Your task to perform on an android device: visit the assistant section in the google photos Image 0: 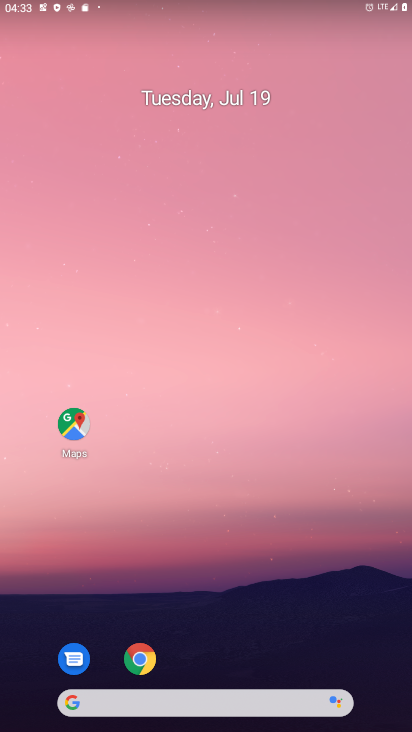
Step 0: drag from (243, 520) to (255, 47)
Your task to perform on an android device: visit the assistant section in the google photos Image 1: 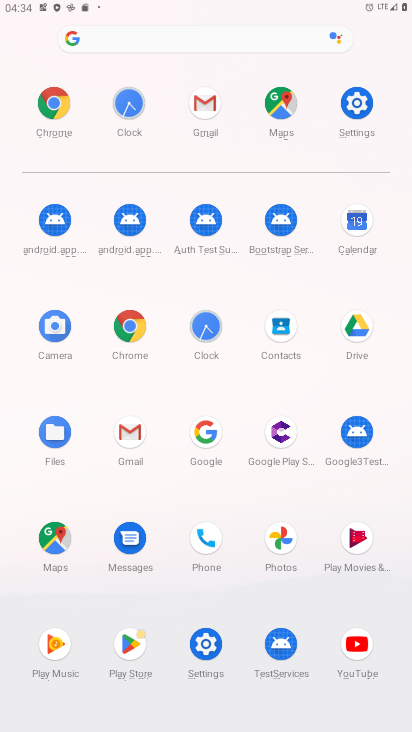
Step 1: click (262, 535)
Your task to perform on an android device: visit the assistant section in the google photos Image 2: 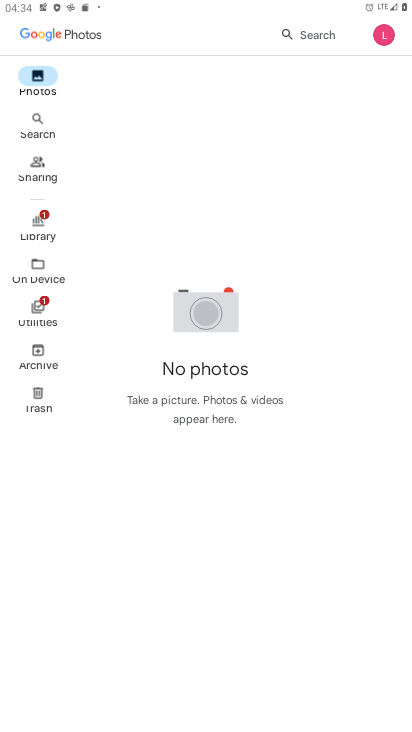
Step 2: task complete